Your task to perform on an android device: Go to wifi settings Image 0: 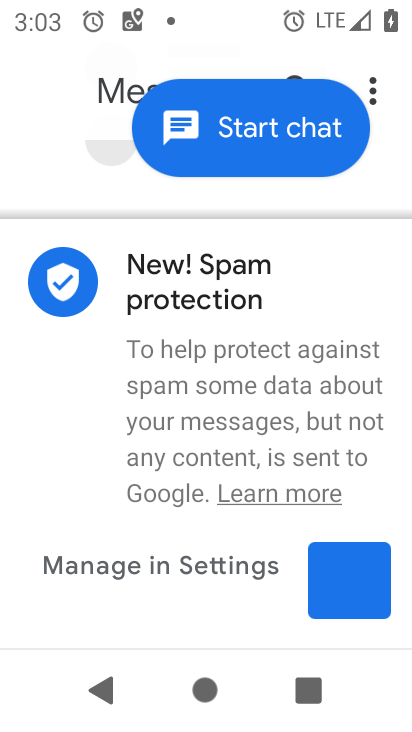
Step 0: press home button
Your task to perform on an android device: Go to wifi settings Image 1: 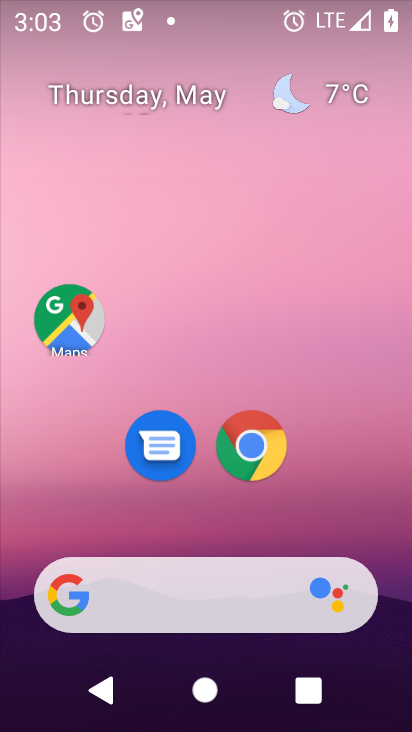
Step 1: drag from (332, 520) to (378, 10)
Your task to perform on an android device: Go to wifi settings Image 2: 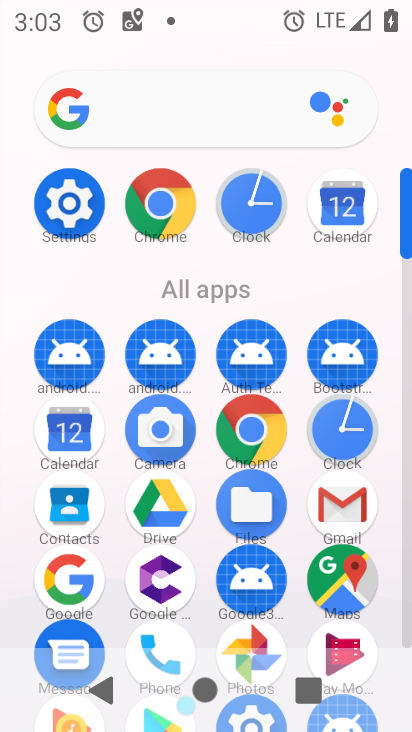
Step 2: click (75, 216)
Your task to perform on an android device: Go to wifi settings Image 3: 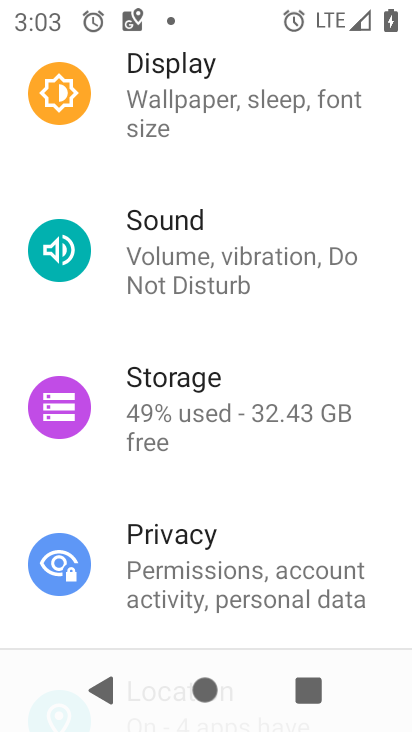
Step 3: drag from (346, 212) to (367, 541)
Your task to perform on an android device: Go to wifi settings Image 4: 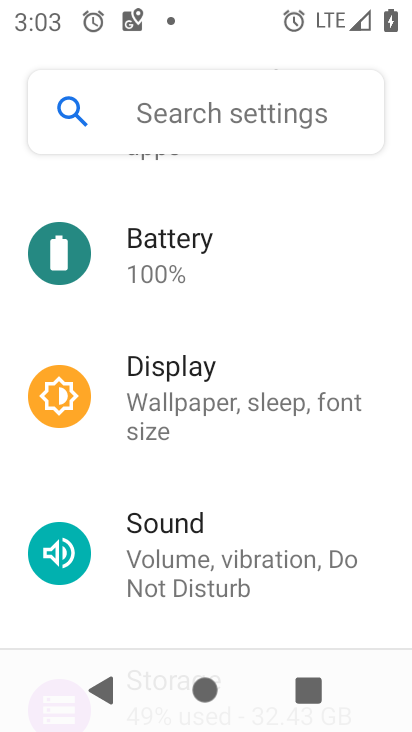
Step 4: drag from (327, 249) to (369, 610)
Your task to perform on an android device: Go to wifi settings Image 5: 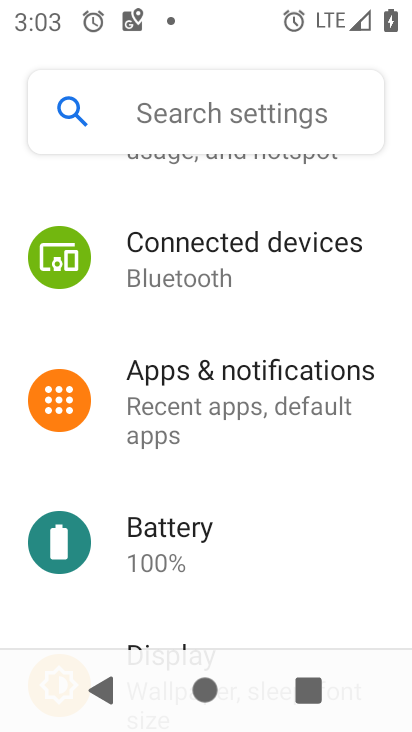
Step 5: drag from (348, 247) to (370, 613)
Your task to perform on an android device: Go to wifi settings Image 6: 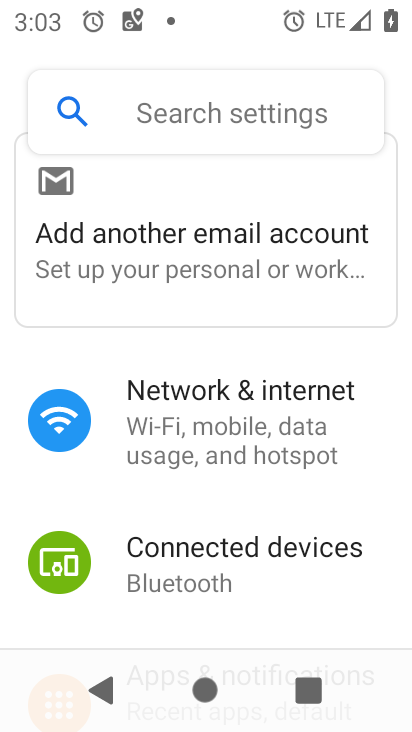
Step 6: click (200, 413)
Your task to perform on an android device: Go to wifi settings Image 7: 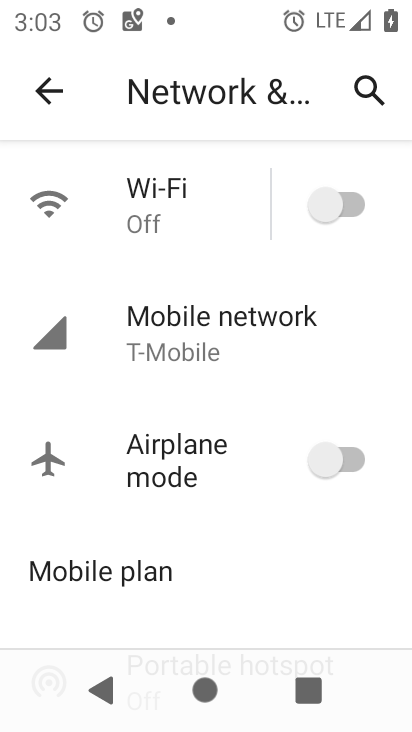
Step 7: click (104, 202)
Your task to perform on an android device: Go to wifi settings Image 8: 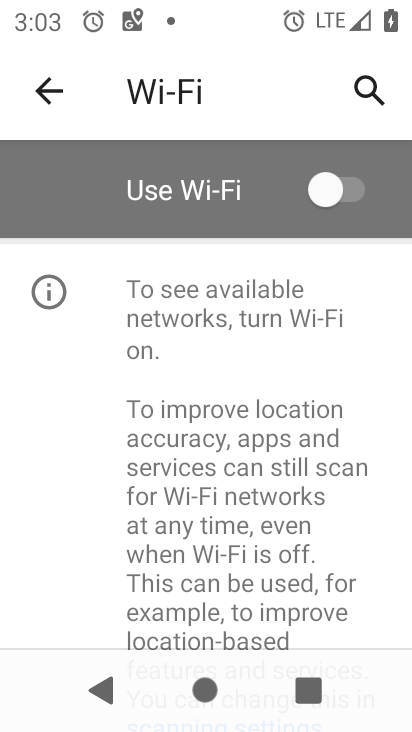
Step 8: task complete